Your task to perform on an android device: toggle translation in the chrome app Image 0: 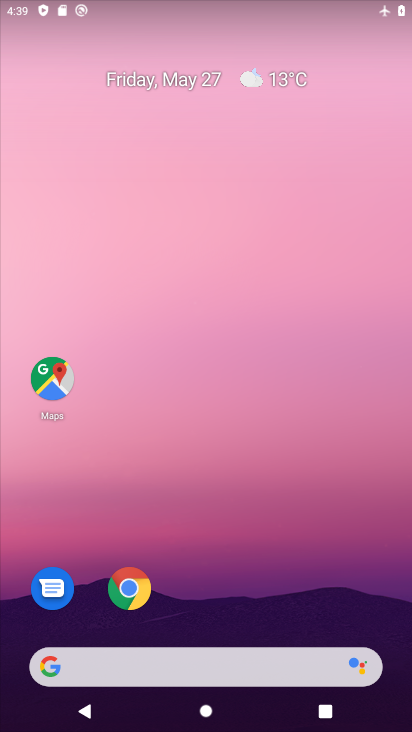
Step 0: click (141, 611)
Your task to perform on an android device: toggle translation in the chrome app Image 1: 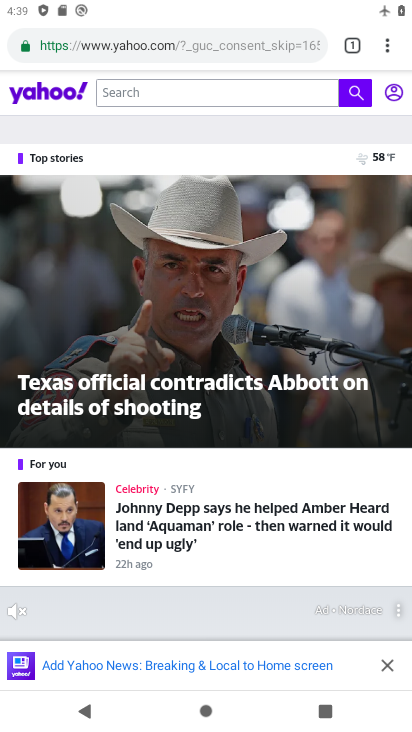
Step 1: drag from (390, 40) to (223, 510)
Your task to perform on an android device: toggle translation in the chrome app Image 2: 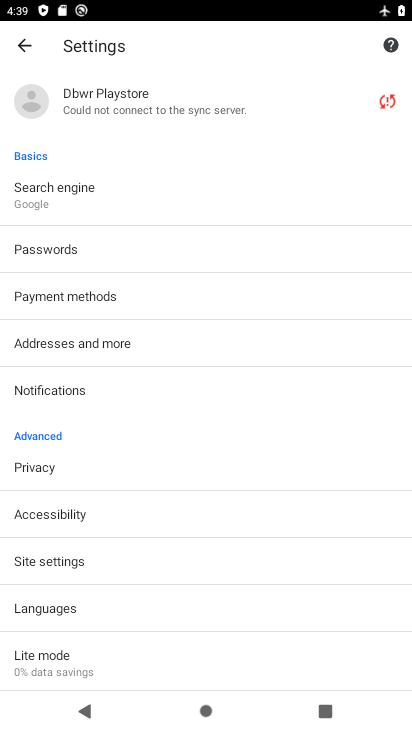
Step 2: click (61, 611)
Your task to perform on an android device: toggle translation in the chrome app Image 3: 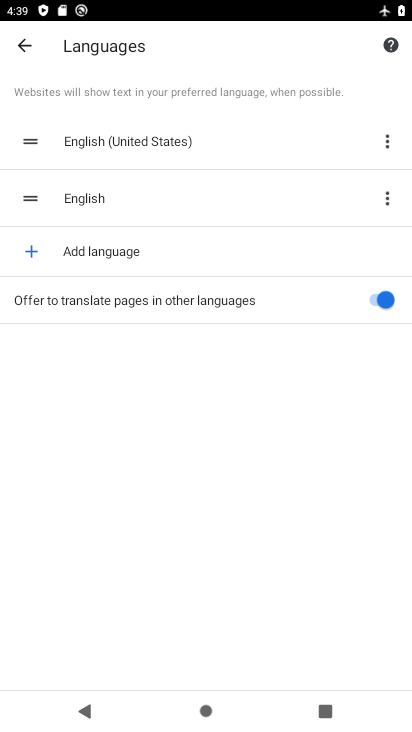
Step 3: click (370, 293)
Your task to perform on an android device: toggle translation in the chrome app Image 4: 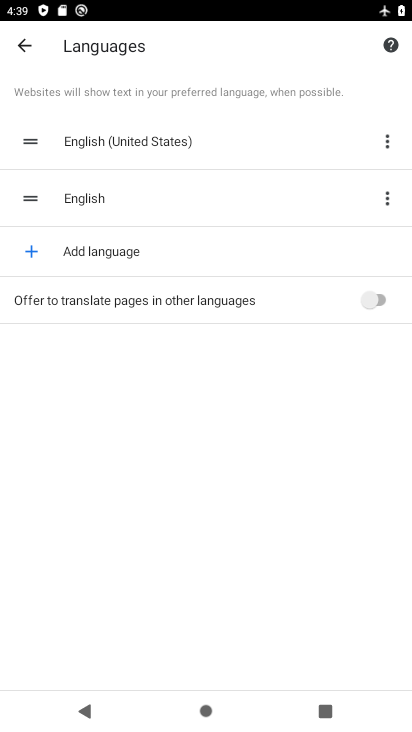
Step 4: task complete